Your task to perform on an android device: check data usage Image 0: 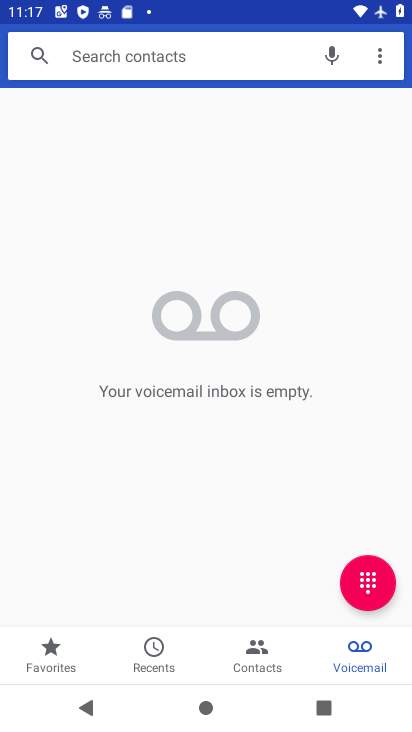
Step 0: press home button
Your task to perform on an android device: check data usage Image 1: 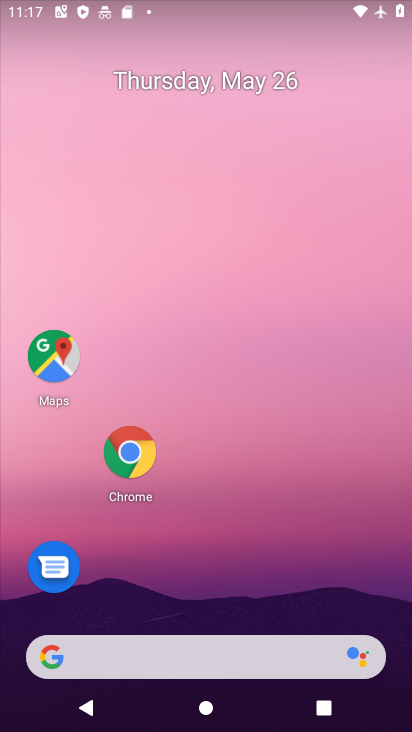
Step 1: drag from (179, 663) to (299, 103)
Your task to perform on an android device: check data usage Image 2: 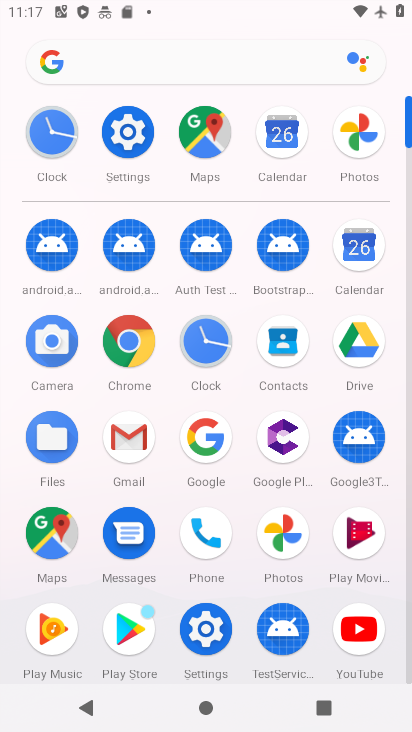
Step 2: click (124, 144)
Your task to perform on an android device: check data usage Image 3: 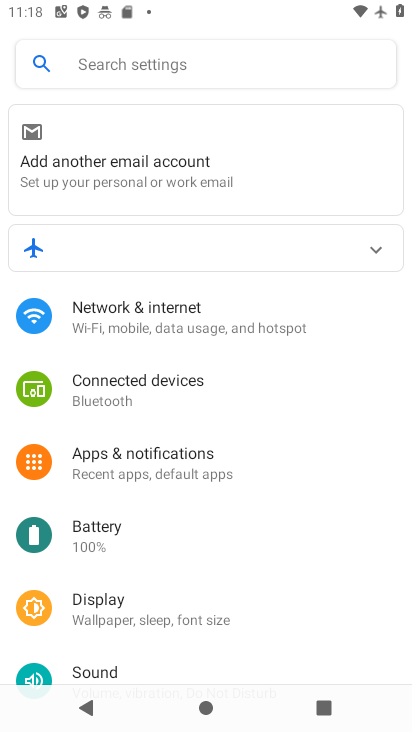
Step 3: click (168, 310)
Your task to perform on an android device: check data usage Image 4: 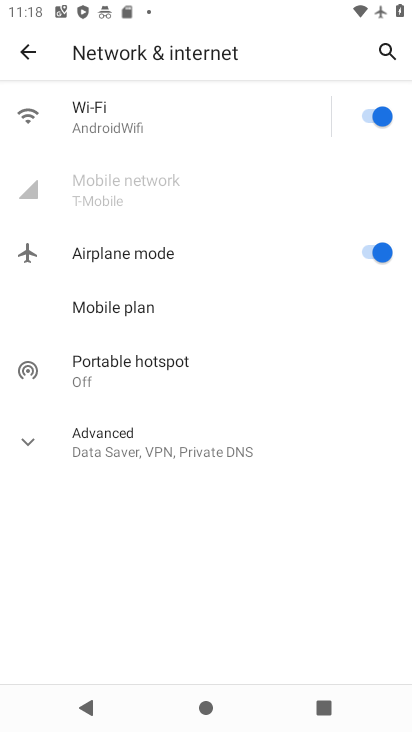
Step 4: click (131, 123)
Your task to perform on an android device: check data usage Image 5: 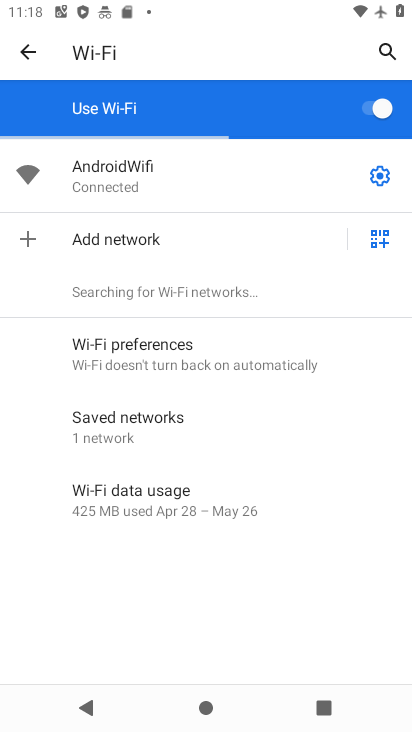
Step 5: click (133, 495)
Your task to perform on an android device: check data usage Image 6: 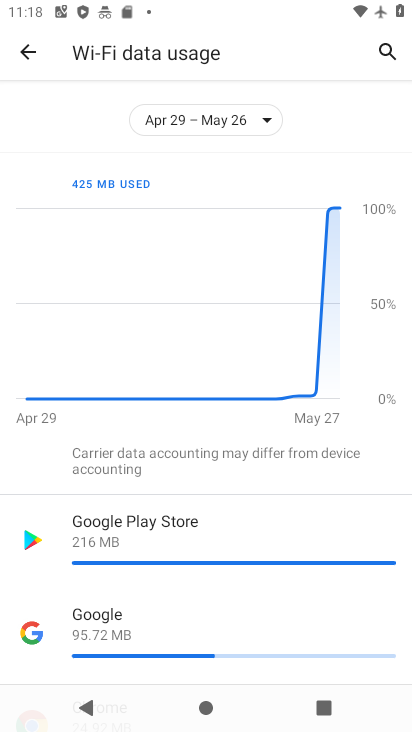
Step 6: task complete